Your task to perform on an android device: Check the weather Image 0: 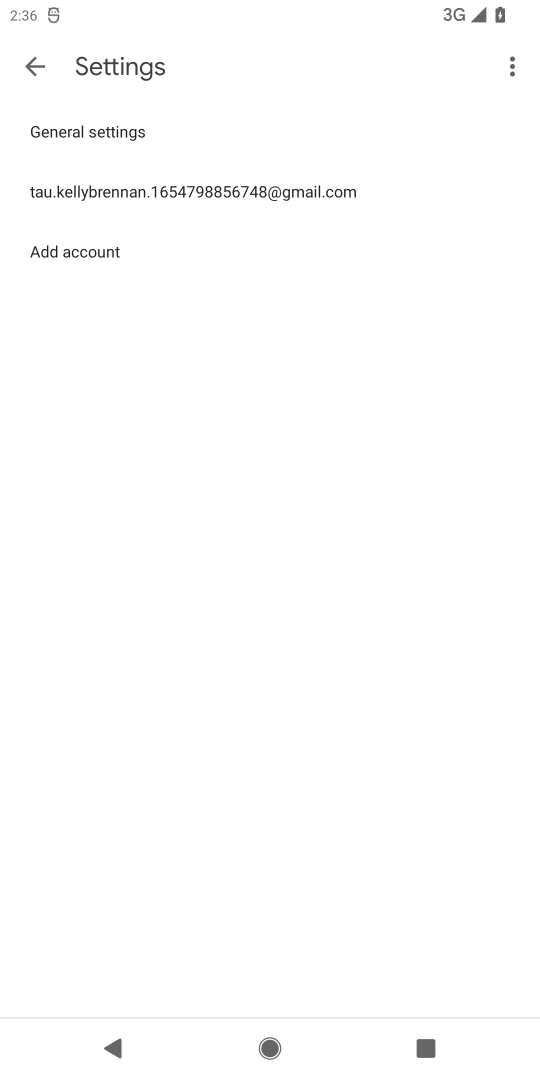
Step 0: press home button
Your task to perform on an android device: Check the weather Image 1: 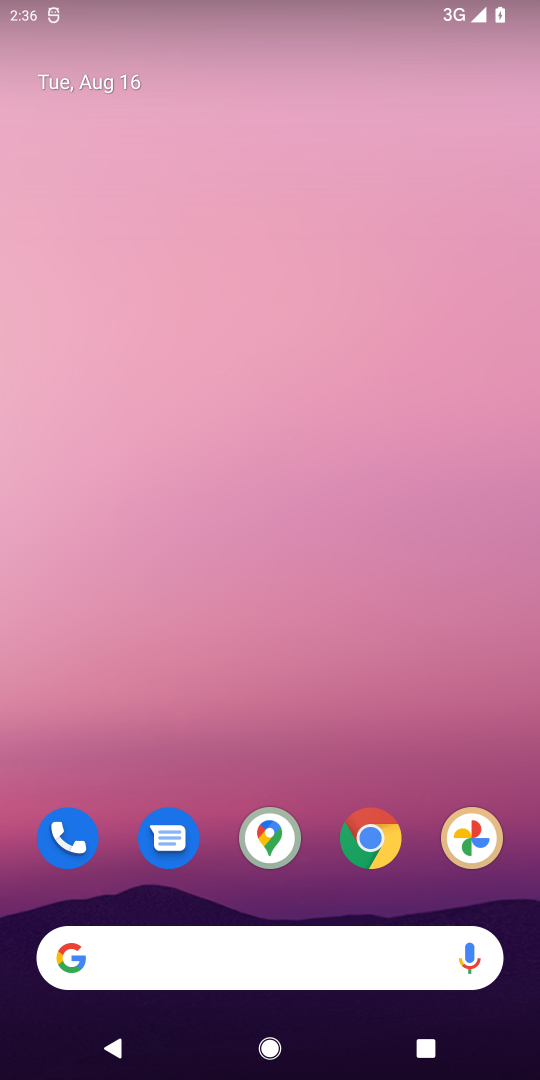
Step 1: click (78, 954)
Your task to perform on an android device: Check the weather Image 2: 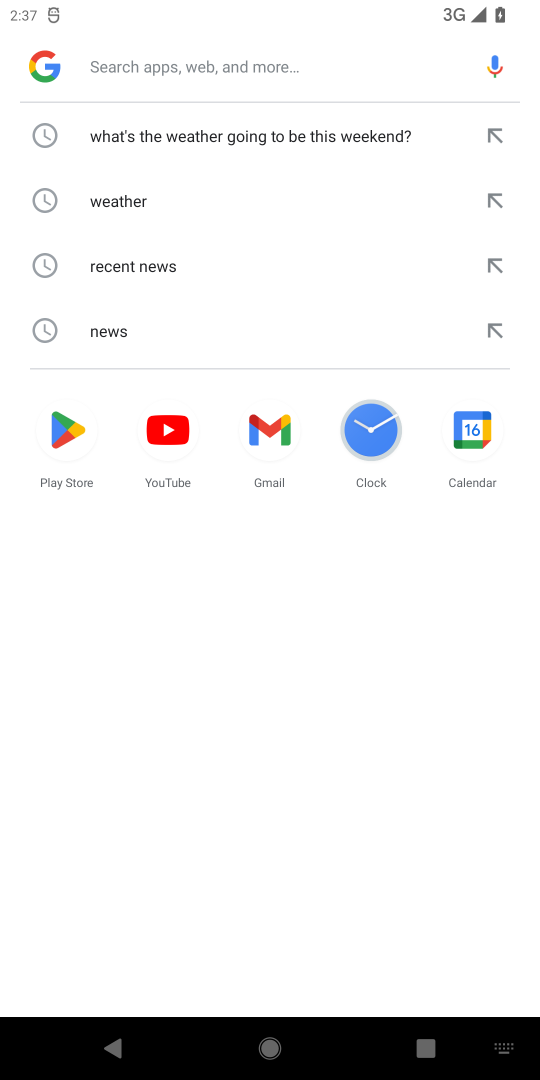
Step 2: click (110, 192)
Your task to perform on an android device: Check the weather Image 3: 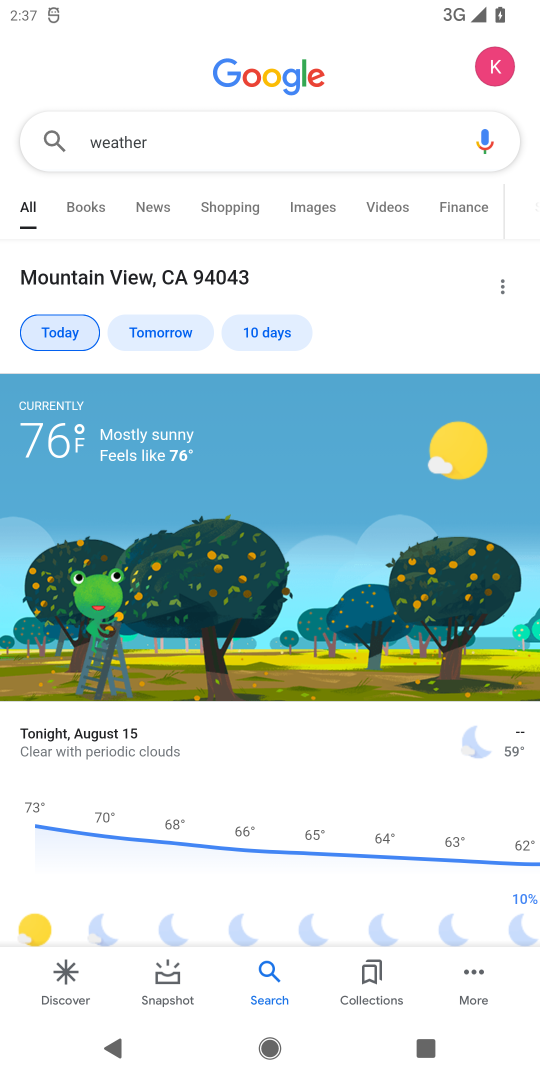
Step 3: task complete